Your task to perform on an android device: Open the calendar app, open the side menu, and click the "Day" option Image 0: 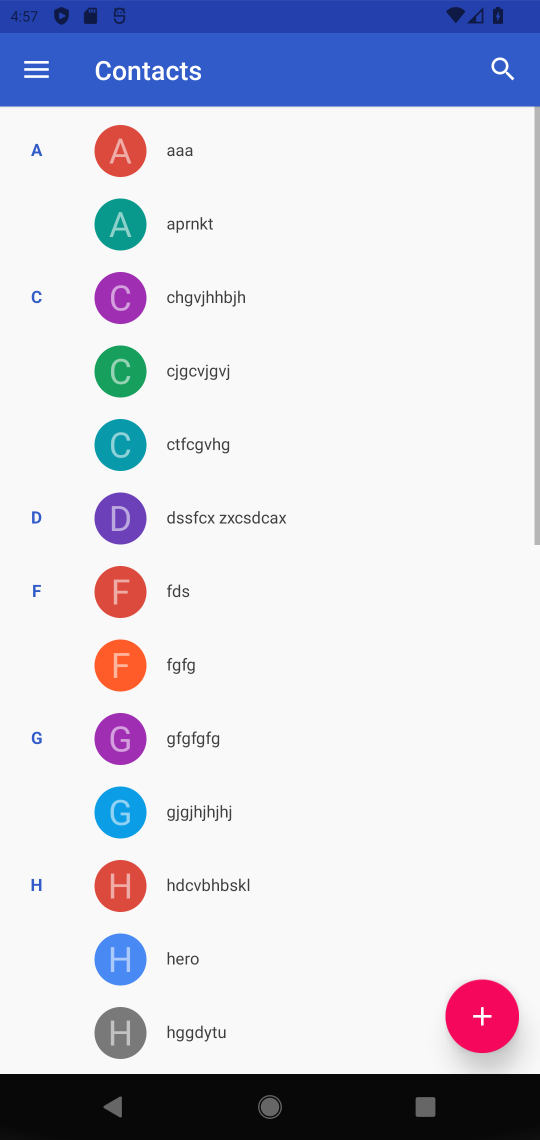
Step 0: press home button
Your task to perform on an android device: Open the calendar app, open the side menu, and click the "Day" option Image 1: 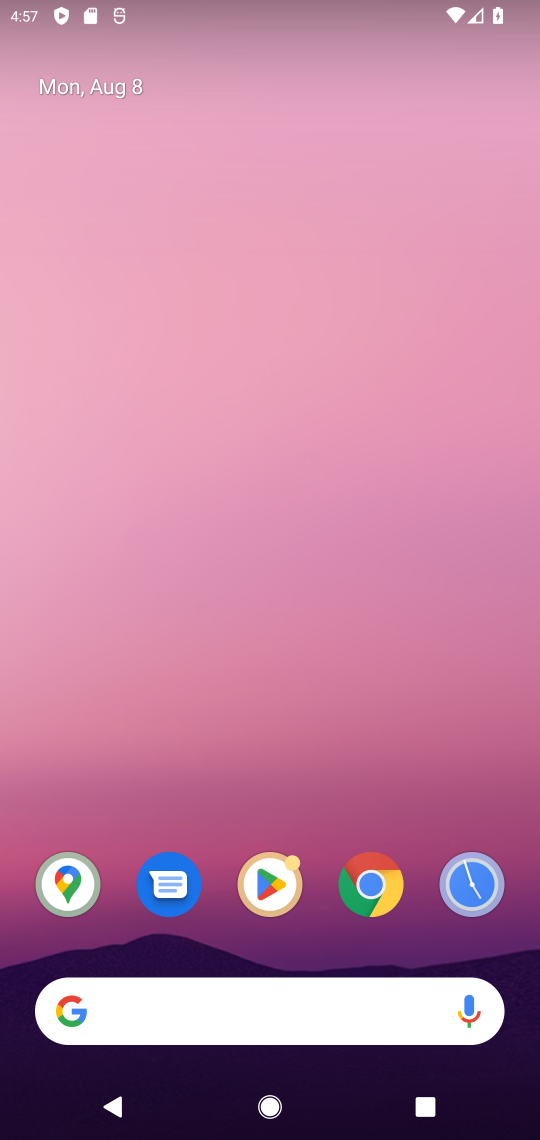
Step 1: drag from (415, 825) to (382, 69)
Your task to perform on an android device: Open the calendar app, open the side menu, and click the "Day" option Image 2: 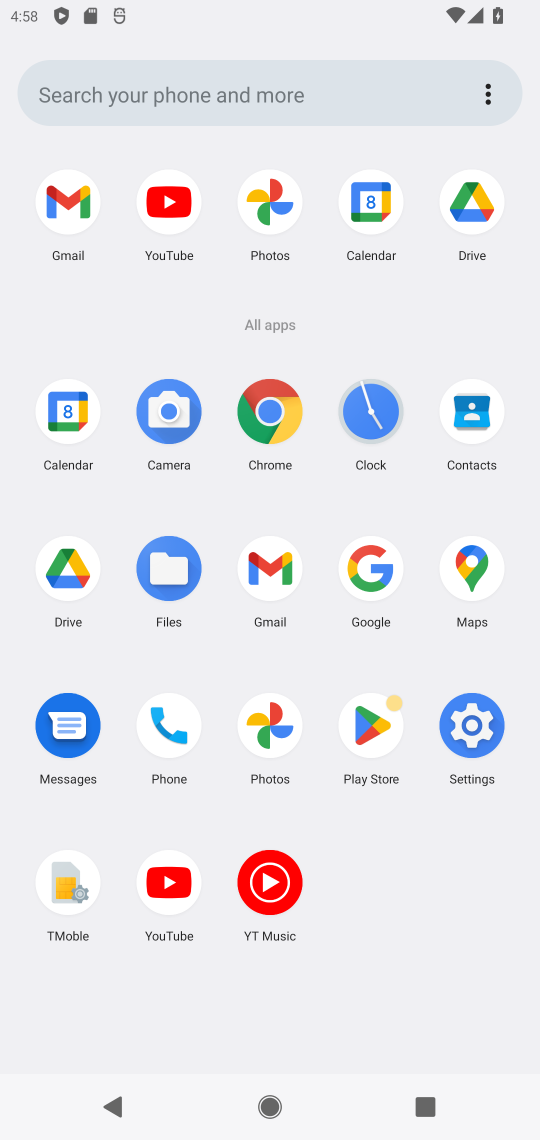
Step 2: click (79, 438)
Your task to perform on an android device: Open the calendar app, open the side menu, and click the "Day" option Image 3: 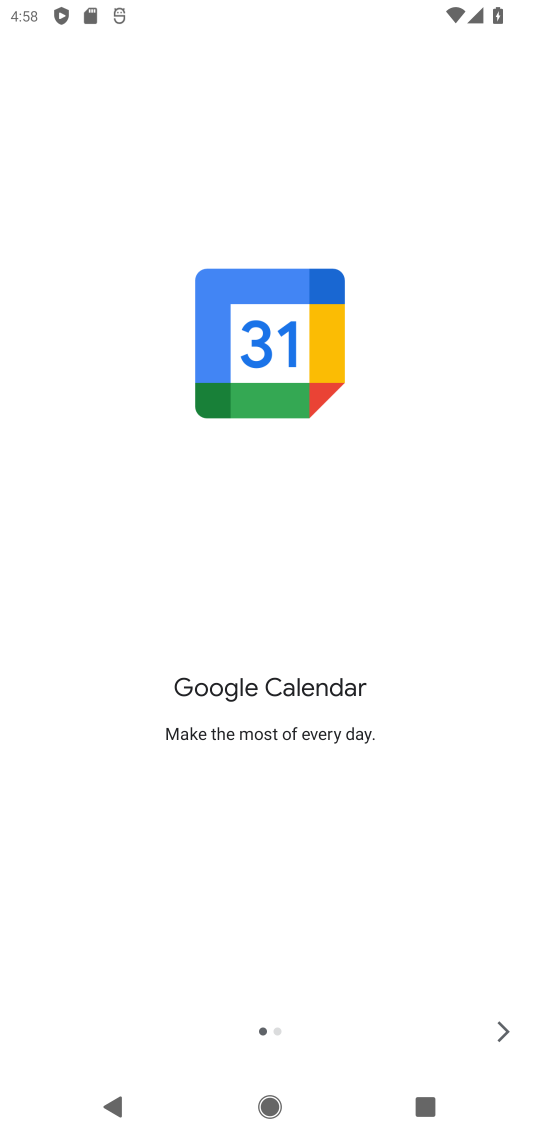
Step 3: click (504, 1020)
Your task to perform on an android device: Open the calendar app, open the side menu, and click the "Day" option Image 4: 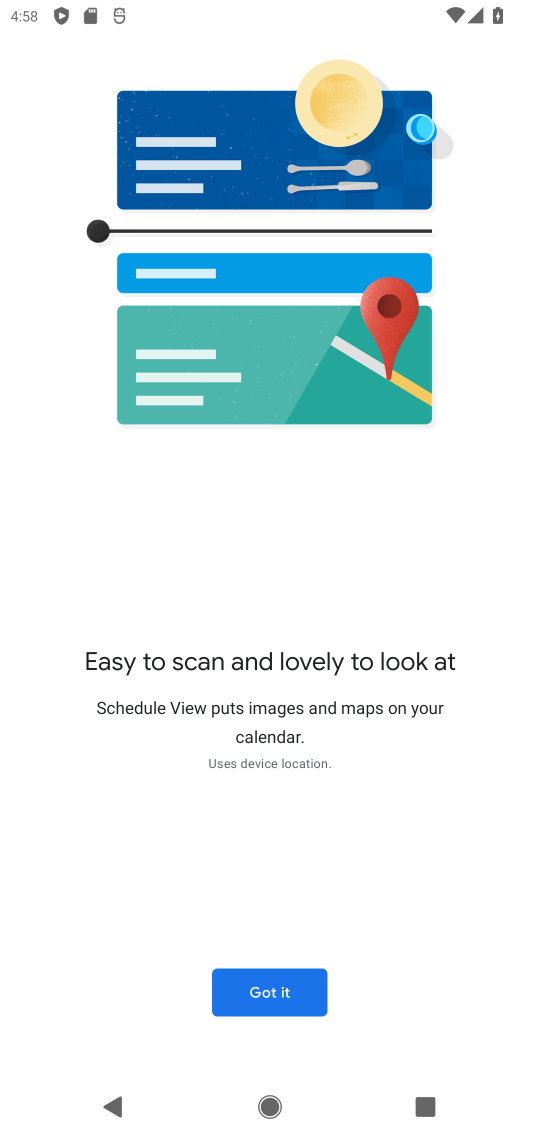
Step 4: click (309, 985)
Your task to perform on an android device: Open the calendar app, open the side menu, and click the "Day" option Image 5: 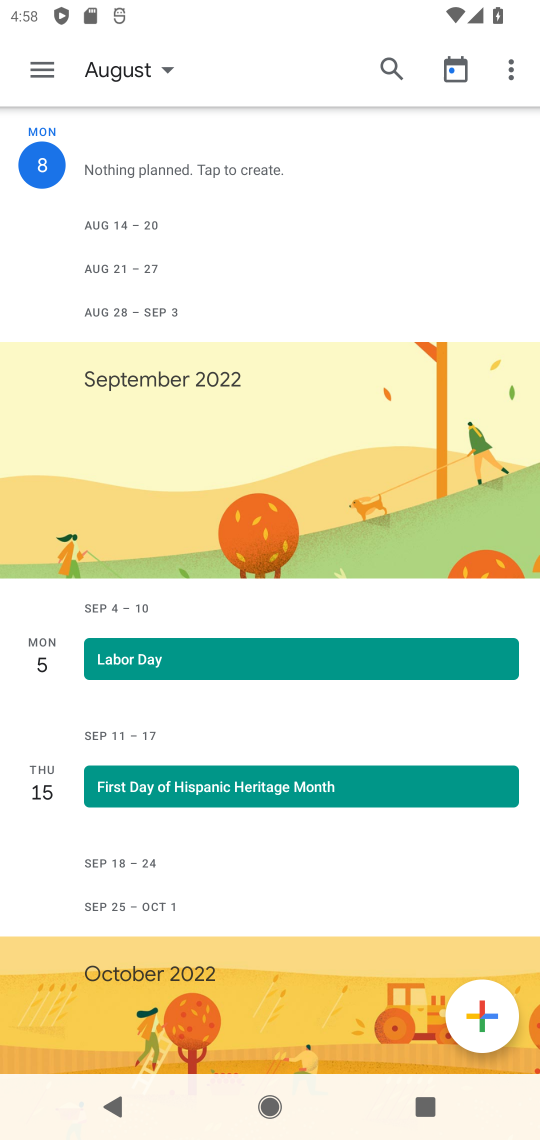
Step 5: click (28, 67)
Your task to perform on an android device: Open the calendar app, open the side menu, and click the "Day" option Image 6: 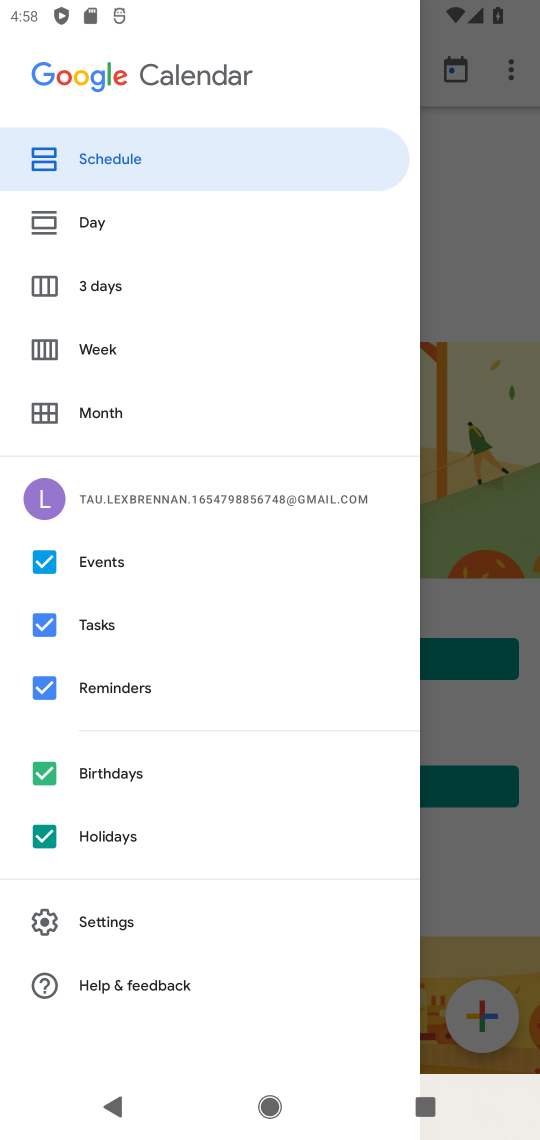
Step 6: click (70, 222)
Your task to perform on an android device: Open the calendar app, open the side menu, and click the "Day" option Image 7: 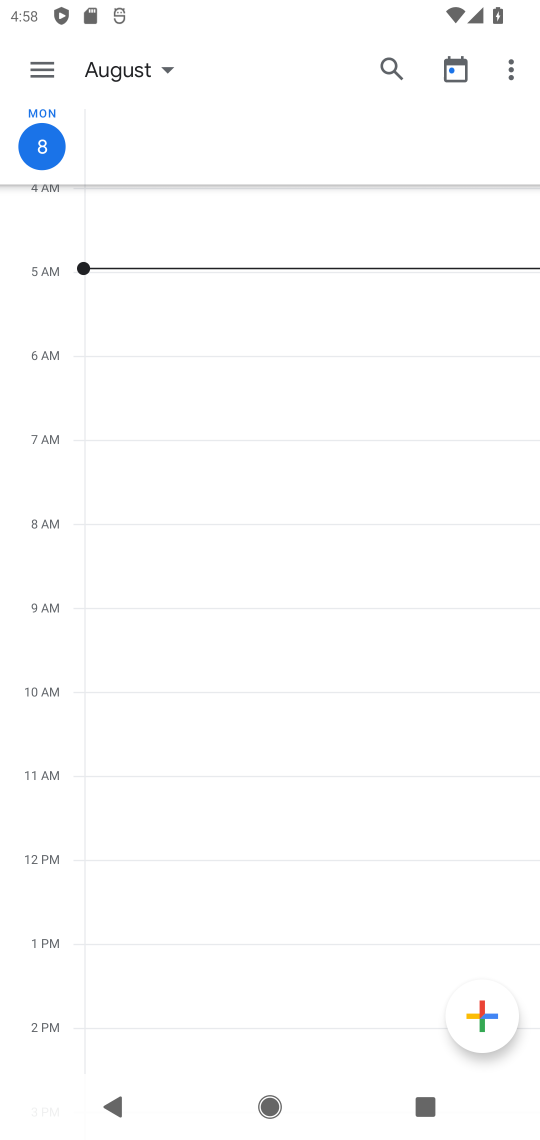
Step 7: task complete